Your task to perform on an android device: empty trash in the gmail app Image 0: 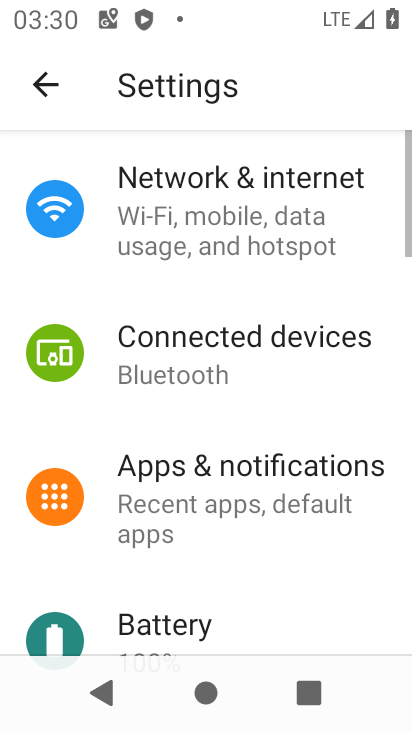
Step 0: press home button
Your task to perform on an android device: empty trash in the gmail app Image 1: 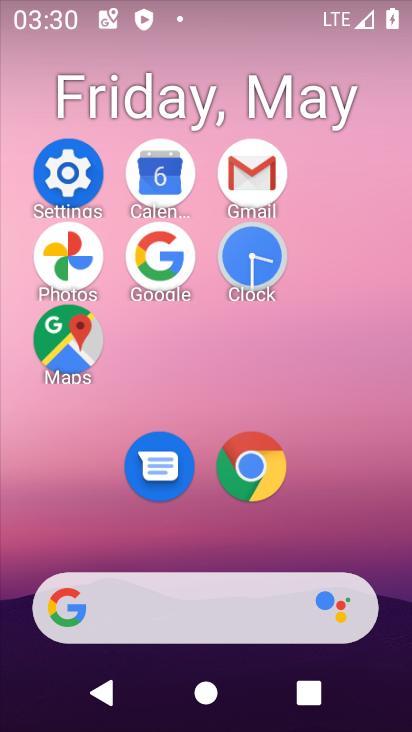
Step 1: click (253, 170)
Your task to perform on an android device: empty trash in the gmail app Image 2: 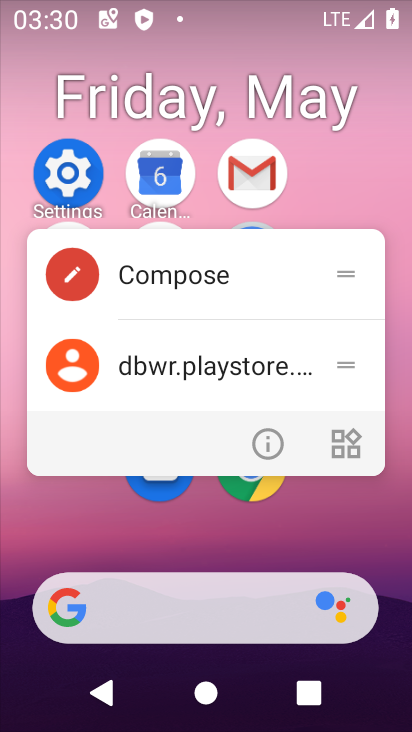
Step 2: click (239, 169)
Your task to perform on an android device: empty trash in the gmail app Image 3: 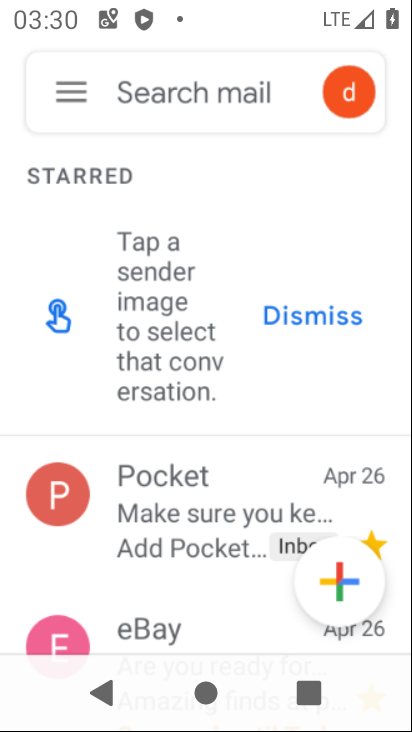
Step 3: click (50, 114)
Your task to perform on an android device: empty trash in the gmail app Image 4: 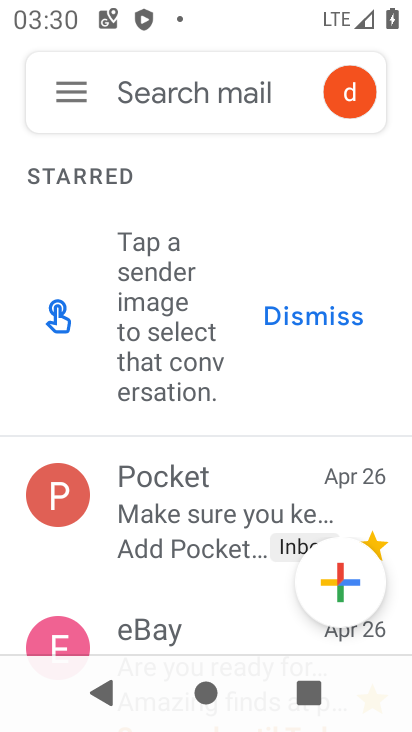
Step 4: click (80, 102)
Your task to perform on an android device: empty trash in the gmail app Image 5: 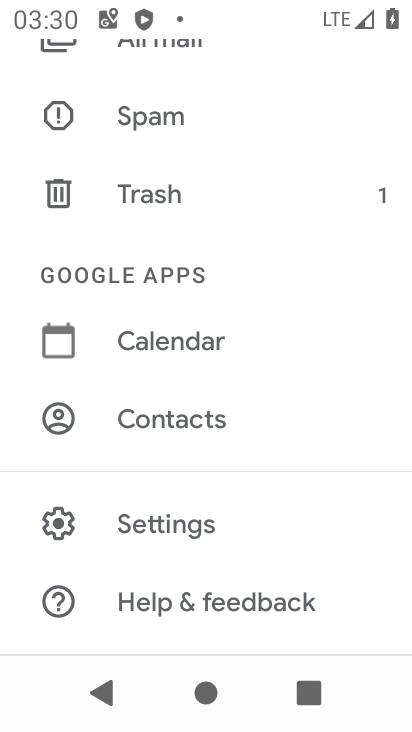
Step 5: click (164, 187)
Your task to perform on an android device: empty trash in the gmail app Image 6: 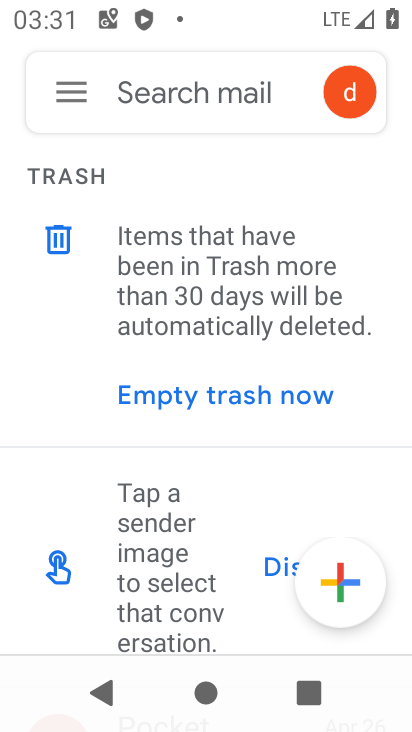
Step 6: click (214, 396)
Your task to perform on an android device: empty trash in the gmail app Image 7: 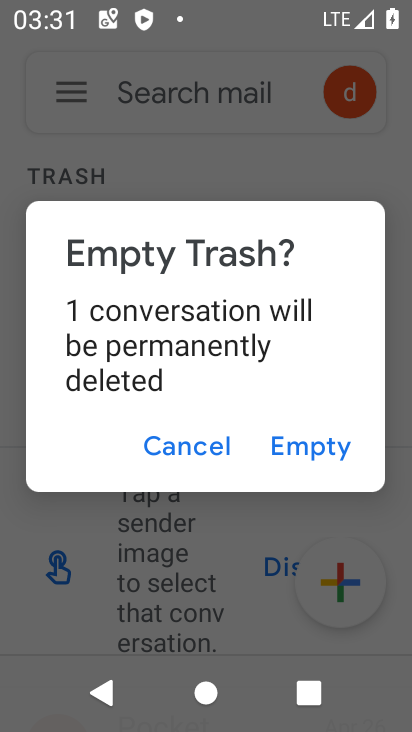
Step 7: click (340, 439)
Your task to perform on an android device: empty trash in the gmail app Image 8: 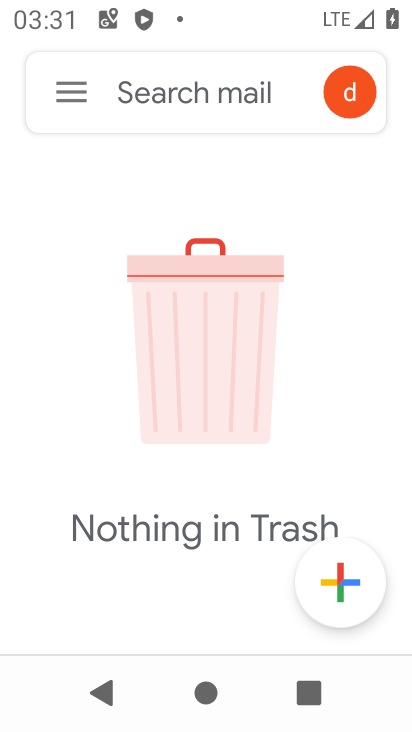
Step 8: task complete